Your task to perform on an android device: find snoozed emails in the gmail app Image 0: 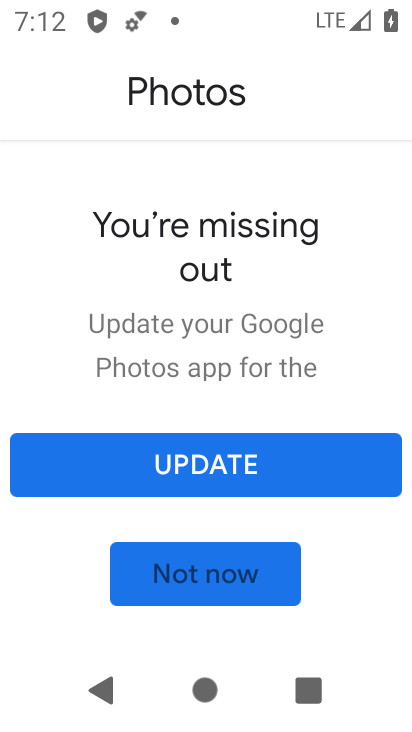
Step 0: press home button
Your task to perform on an android device: find snoozed emails in the gmail app Image 1: 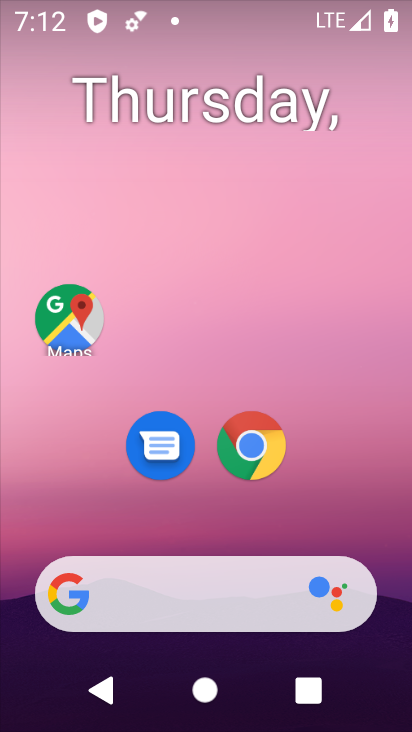
Step 1: click (193, 197)
Your task to perform on an android device: find snoozed emails in the gmail app Image 2: 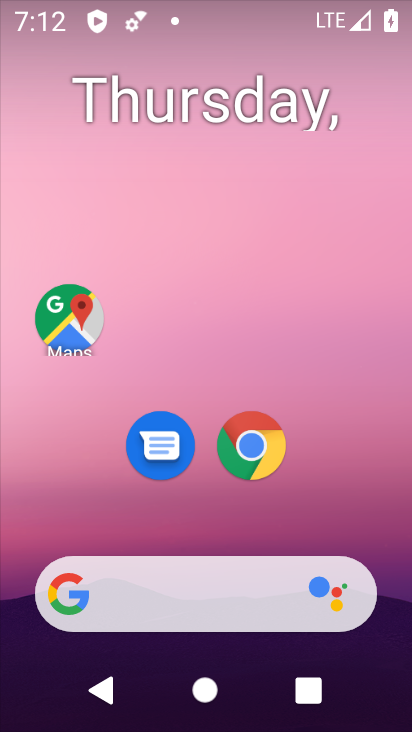
Step 2: drag from (210, 516) to (190, 107)
Your task to perform on an android device: find snoozed emails in the gmail app Image 3: 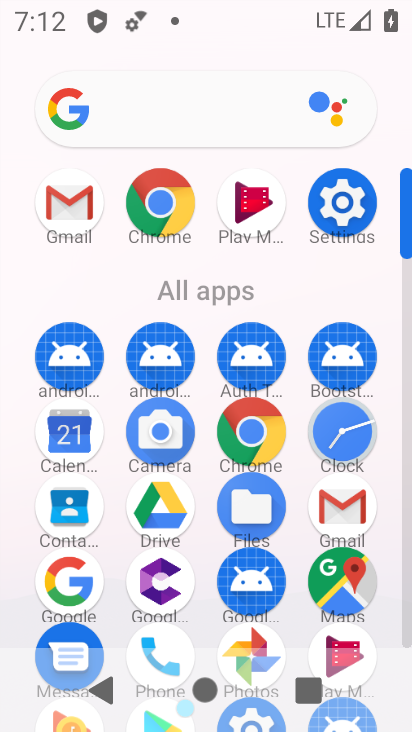
Step 3: click (57, 185)
Your task to perform on an android device: find snoozed emails in the gmail app Image 4: 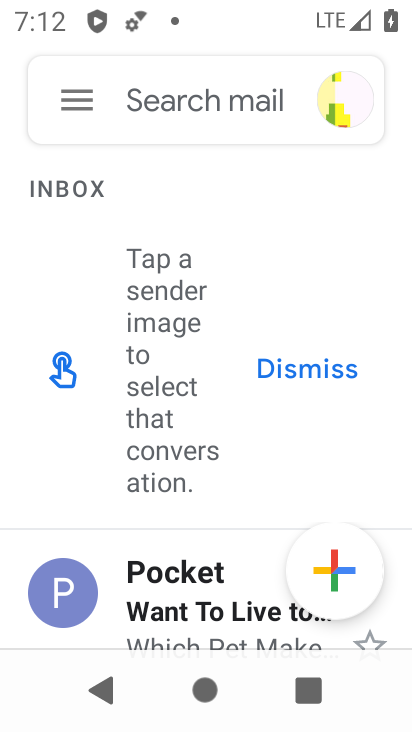
Step 4: click (74, 95)
Your task to perform on an android device: find snoozed emails in the gmail app Image 5: 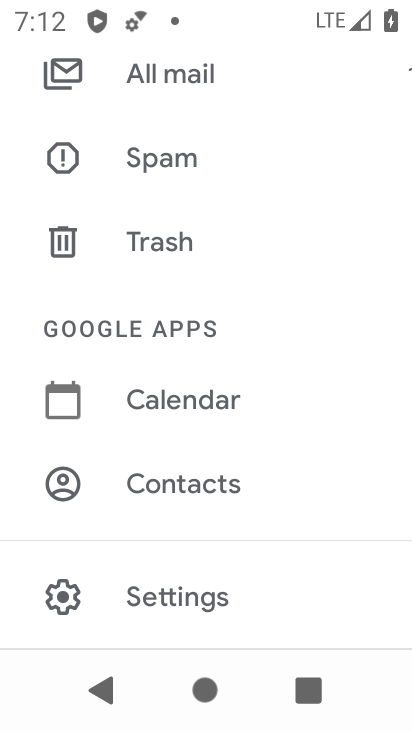
Step 5: drag from (188, 273) to (176, 592)
Your task to perform on an android device: find snoozed emails in the gmail app Image 6: 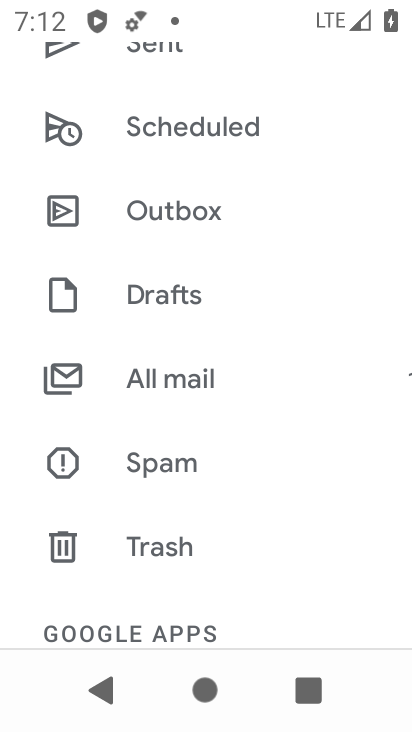
Step 6: drag from (223, 293) to (228, 560)
Your task to perform on an android device: find snoozed emails in the gmail app Image 7: 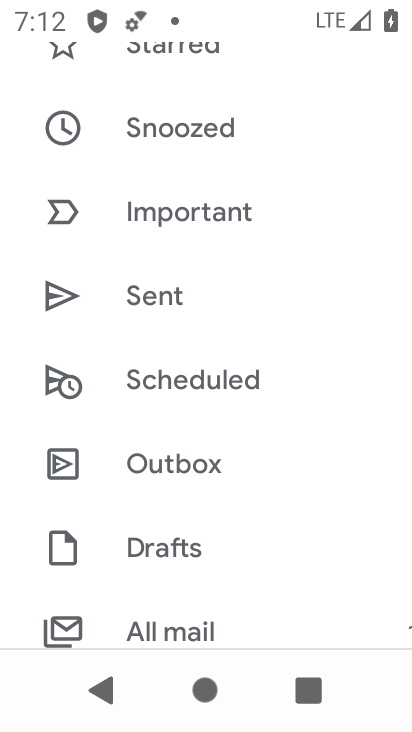
Step 7: click (208, 126)
Your task to perform on an android device: find snoozed emails in the gmail app Image 8: 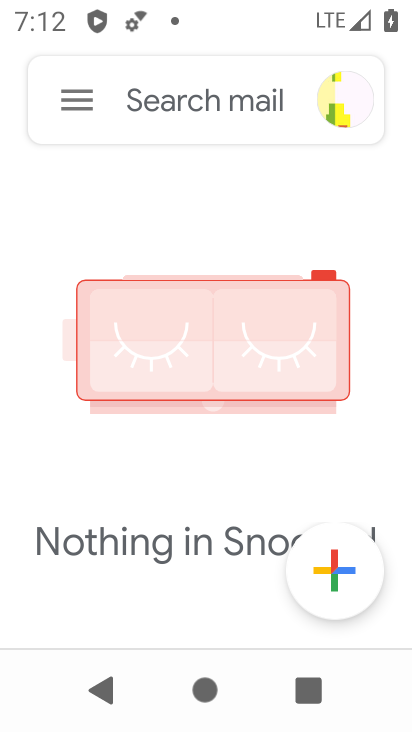
Step 8: task complete